Your task to perform on an android device: turn on priority inbox in the gmail app Image 0: 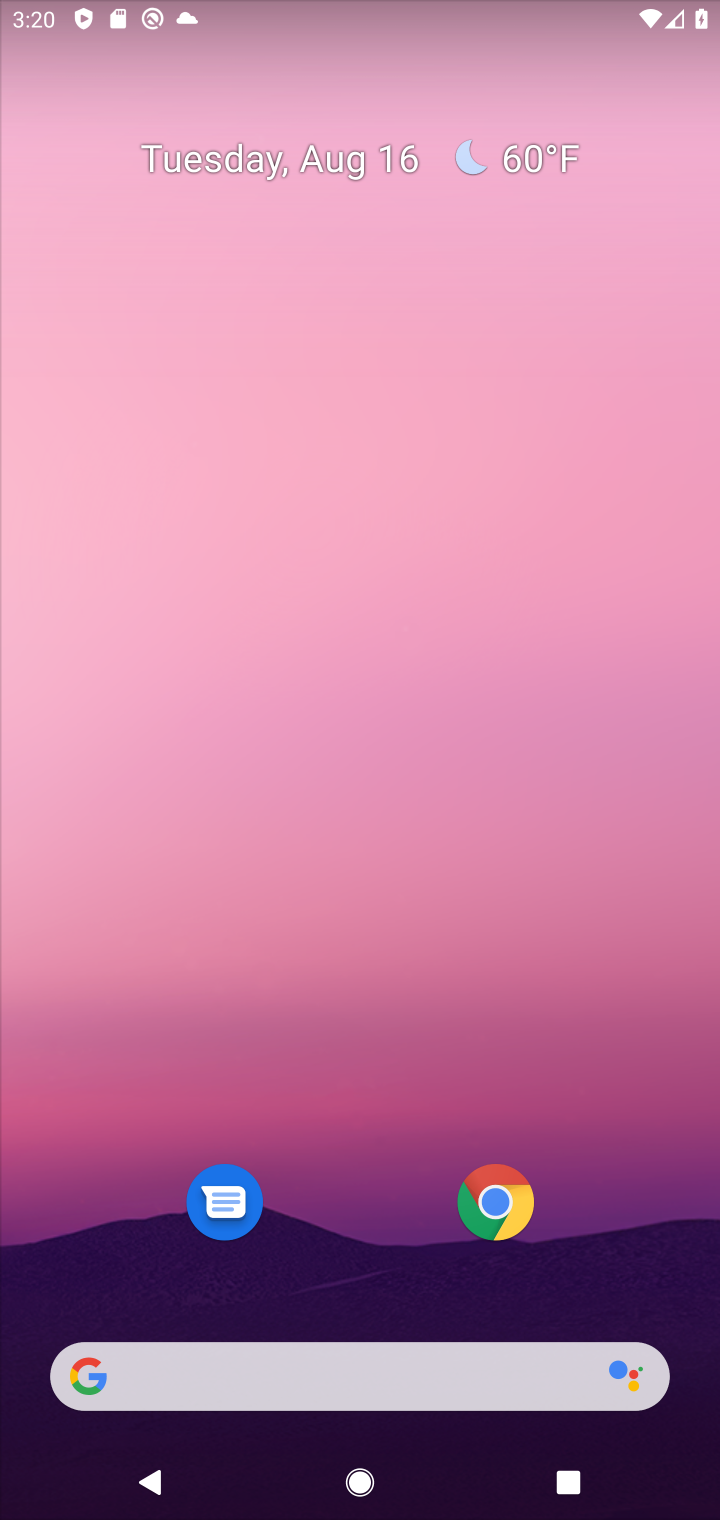
Step 0: drag from (394, 1155) to (431, 365)
Your task to perform on an android device: turn on priority inbox in the gmail app Image 1: 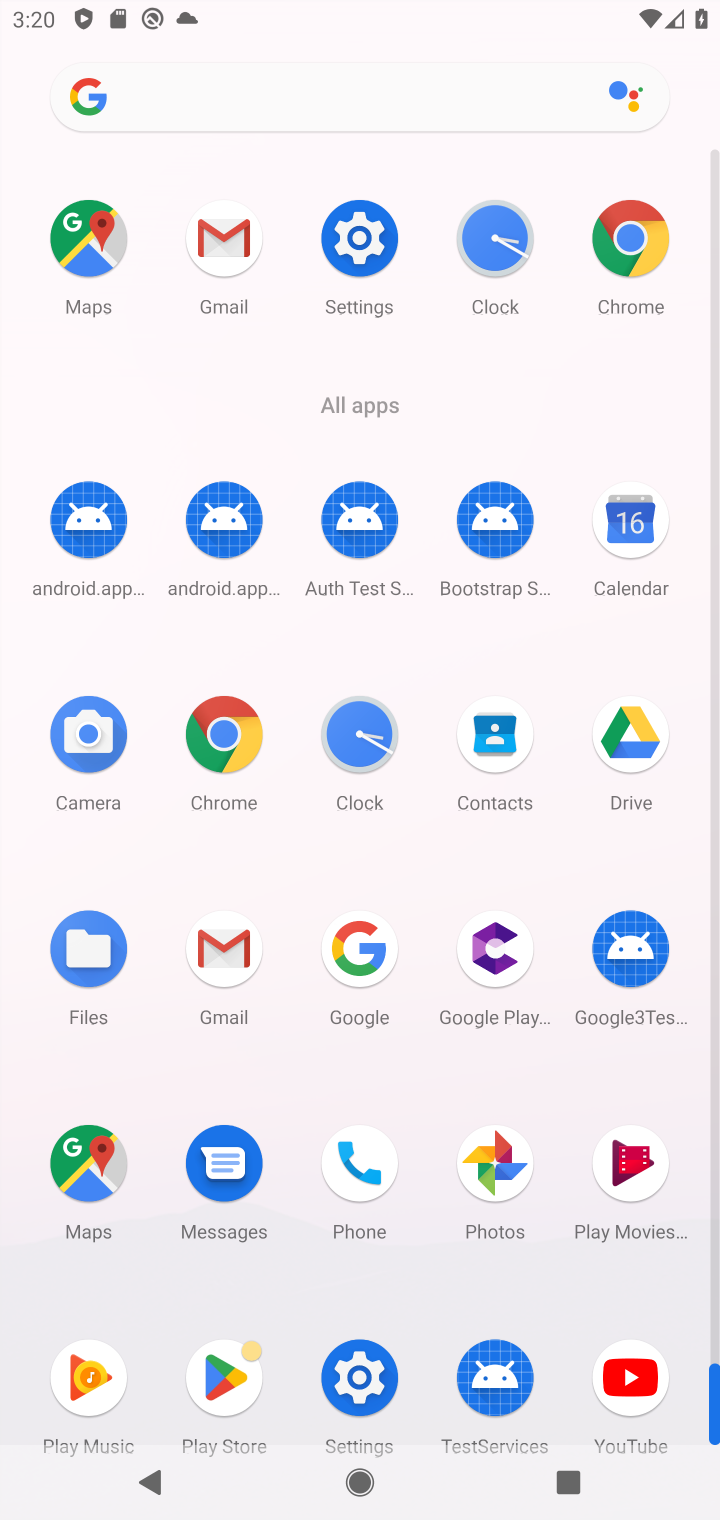
Step 1: click (235, 955)
Your task to perform on an android device: turn on priority inbox in the gmail app Image 2: 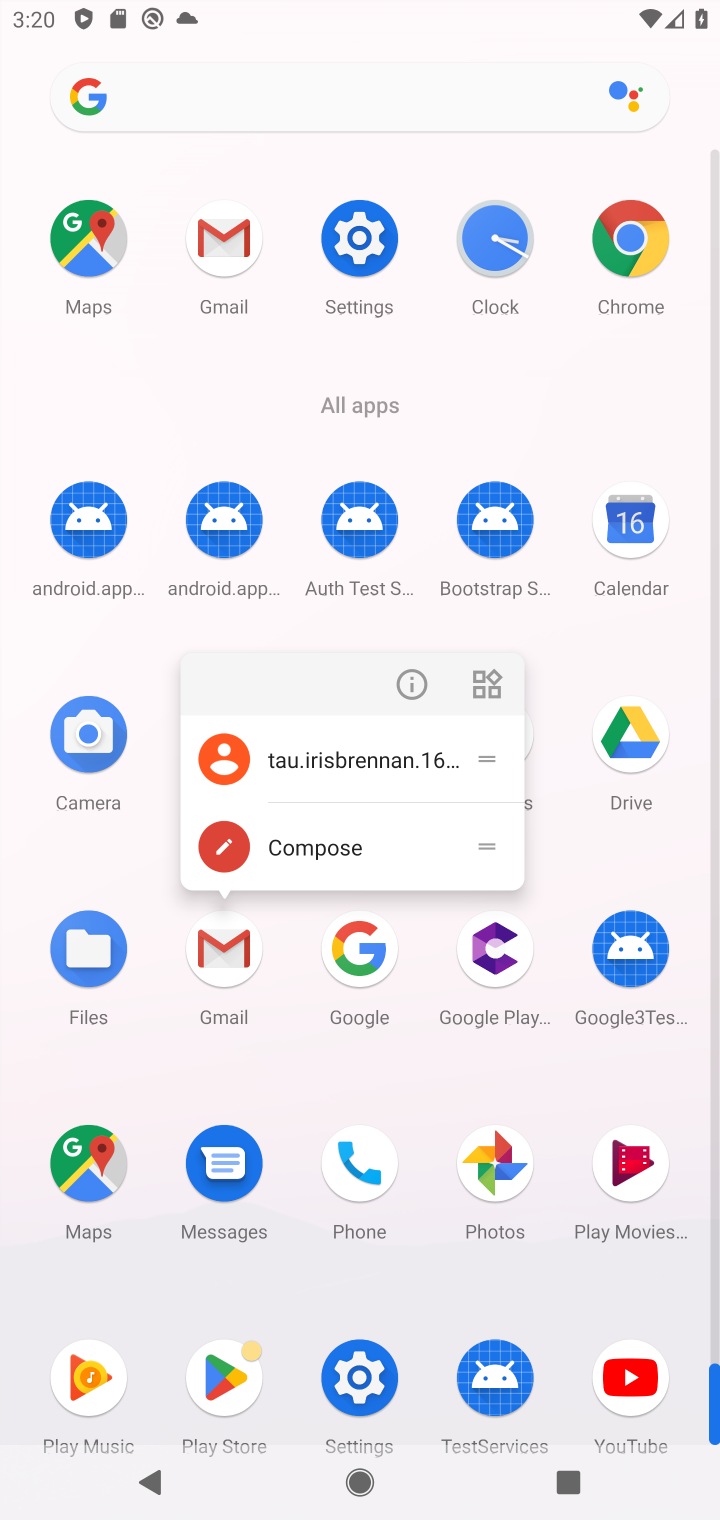
Step 2: click (216, 963)
Your task to perform on an android device: turn on priority inbox in the gmail app Image 3: 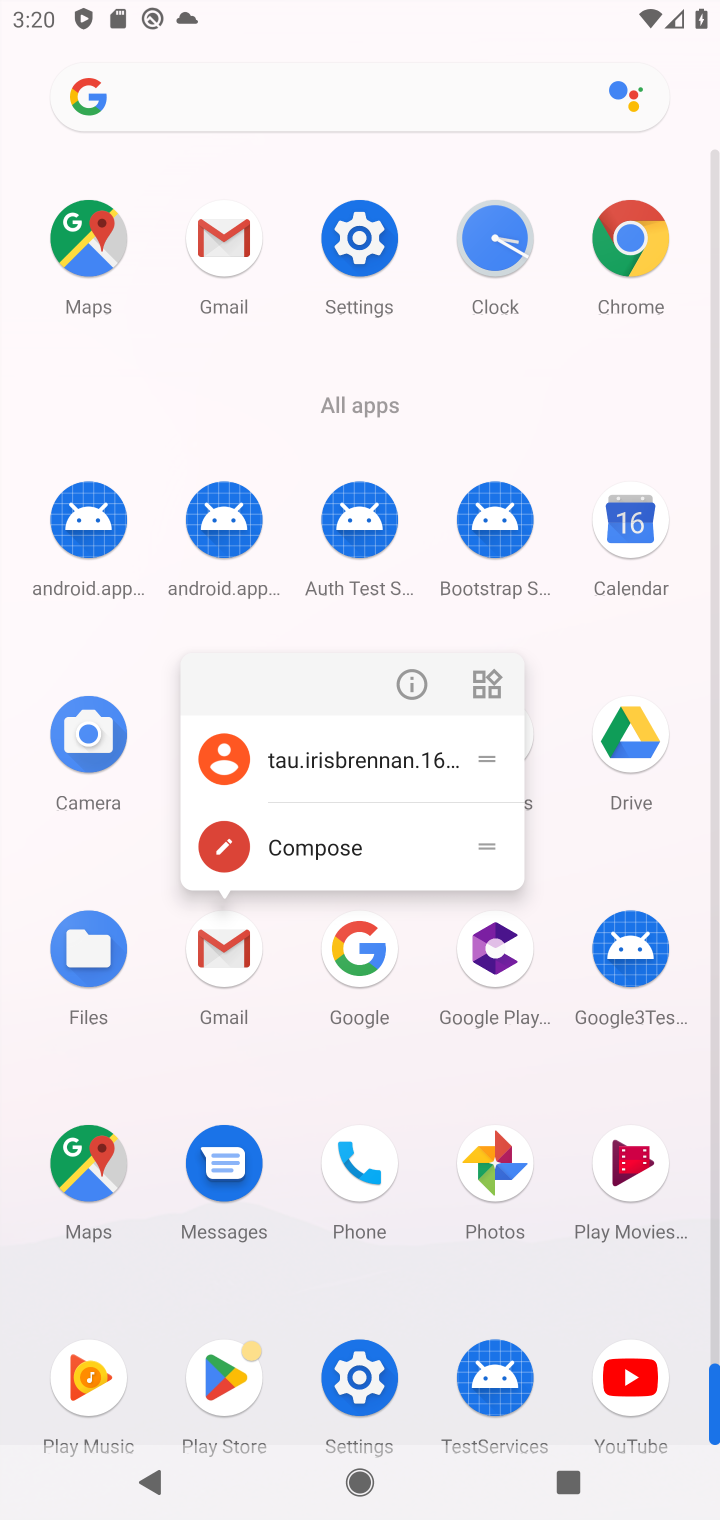
Step 3: click (228, 953)
Your task to perform on an android device: turn on priority inbox in the gmail app Image 4: 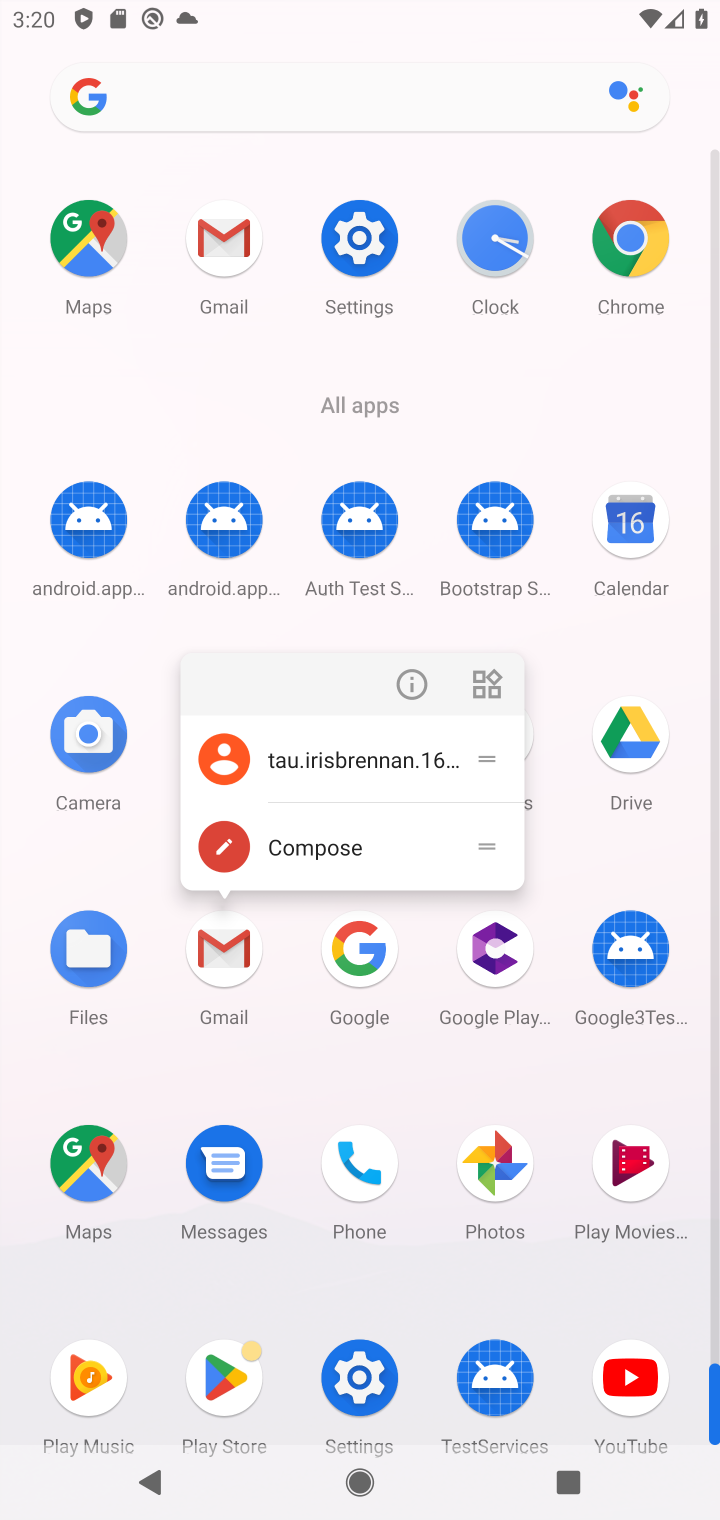
Step 4: click (228, 953)
Your task to perform on an android device: turn on priority inbox in the gmail app Image 5: 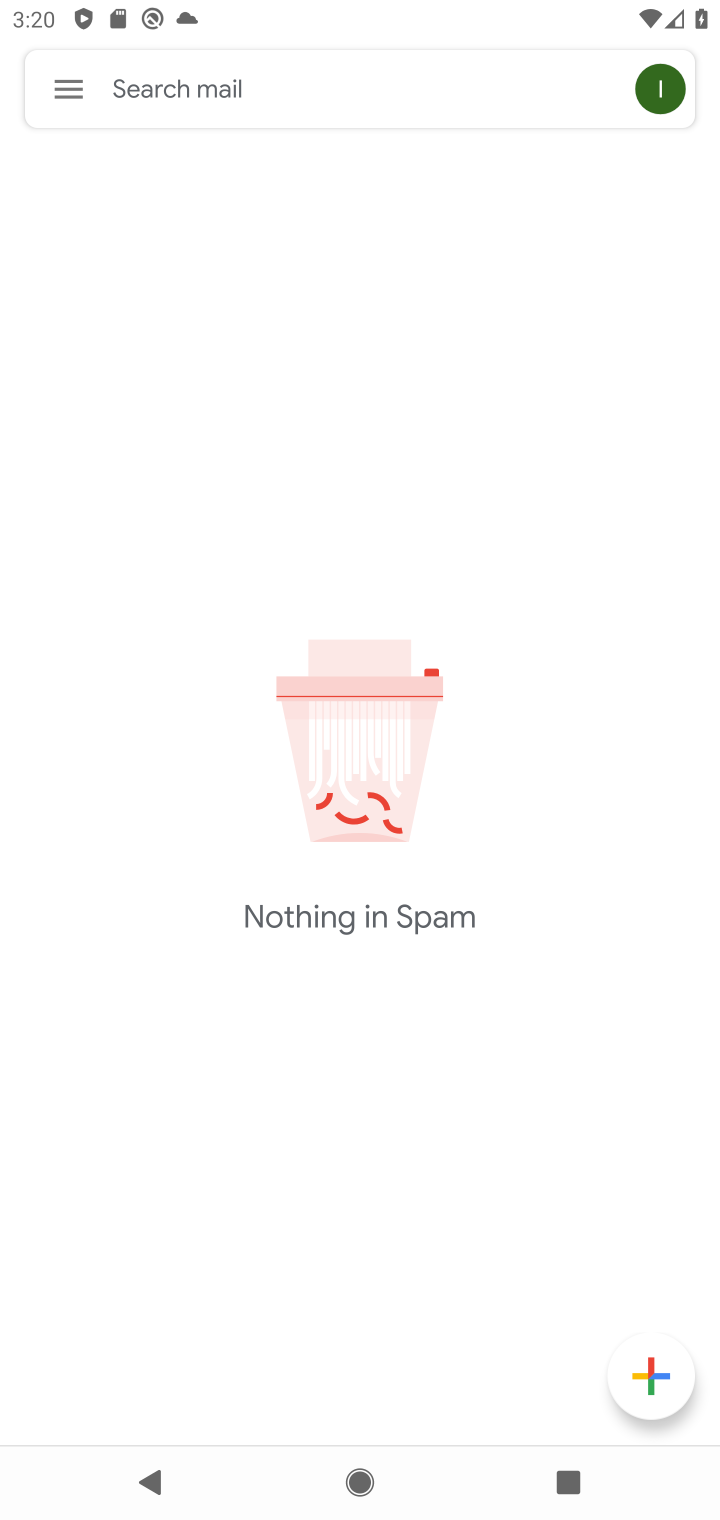
Step 5: click (61, 100)
Your task to perform on an android device: turn on priority inbox in the gmail app Image 6: 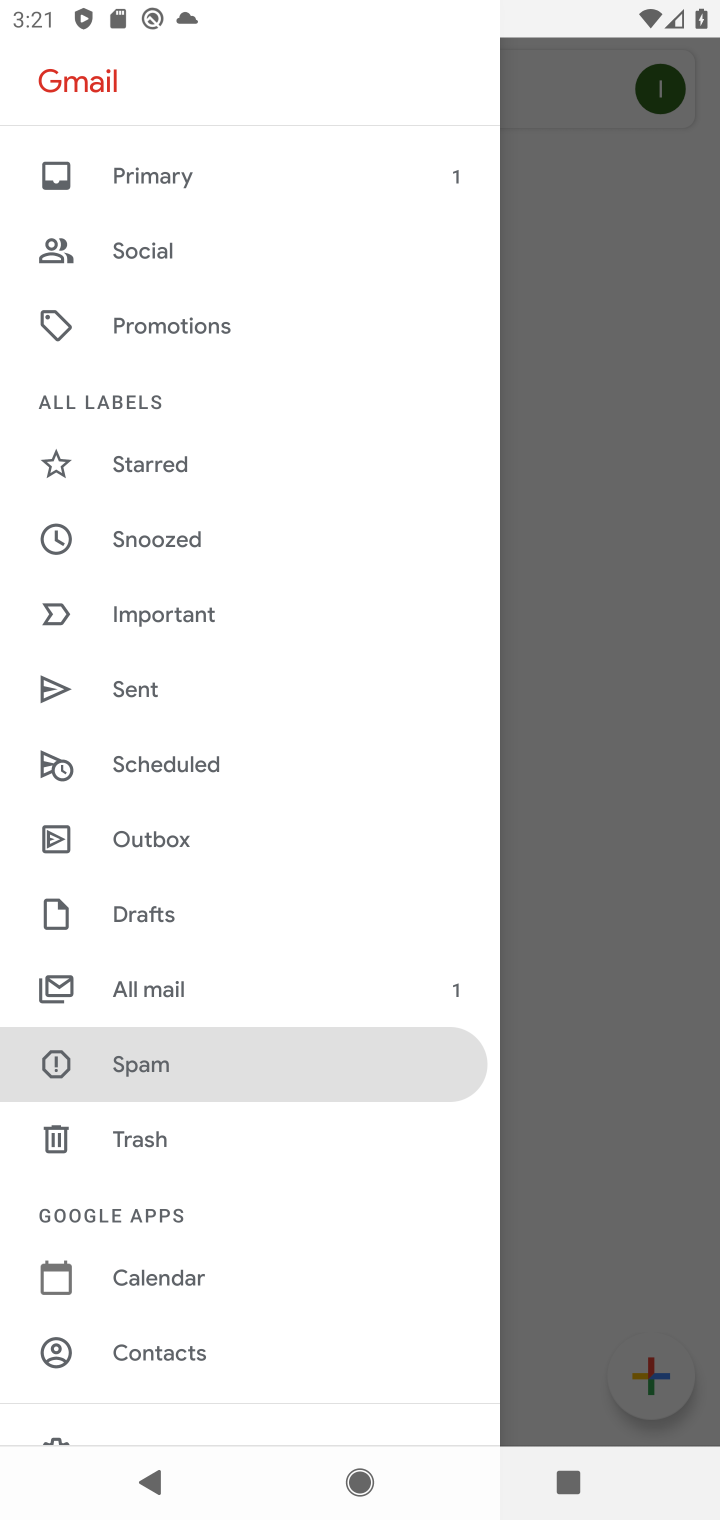
Step 6: drag from (166, 1339) to (246, 792)
Your task to perform on an android device: turn on priority inbox in the gmail app Image 7: 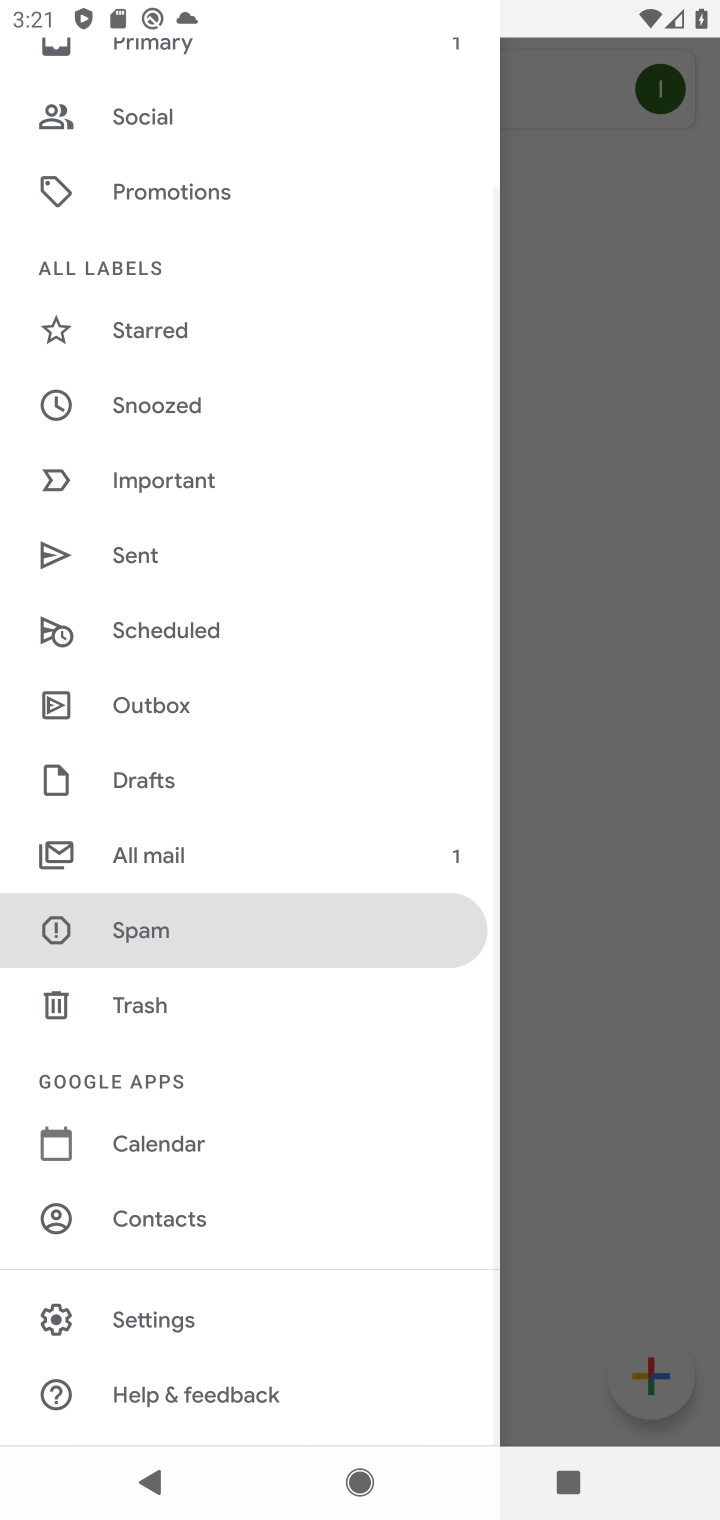
Step 7: click (195, 1326)
Your task to perform on an android device: turn on priority inbox in the gmail app Image 8: 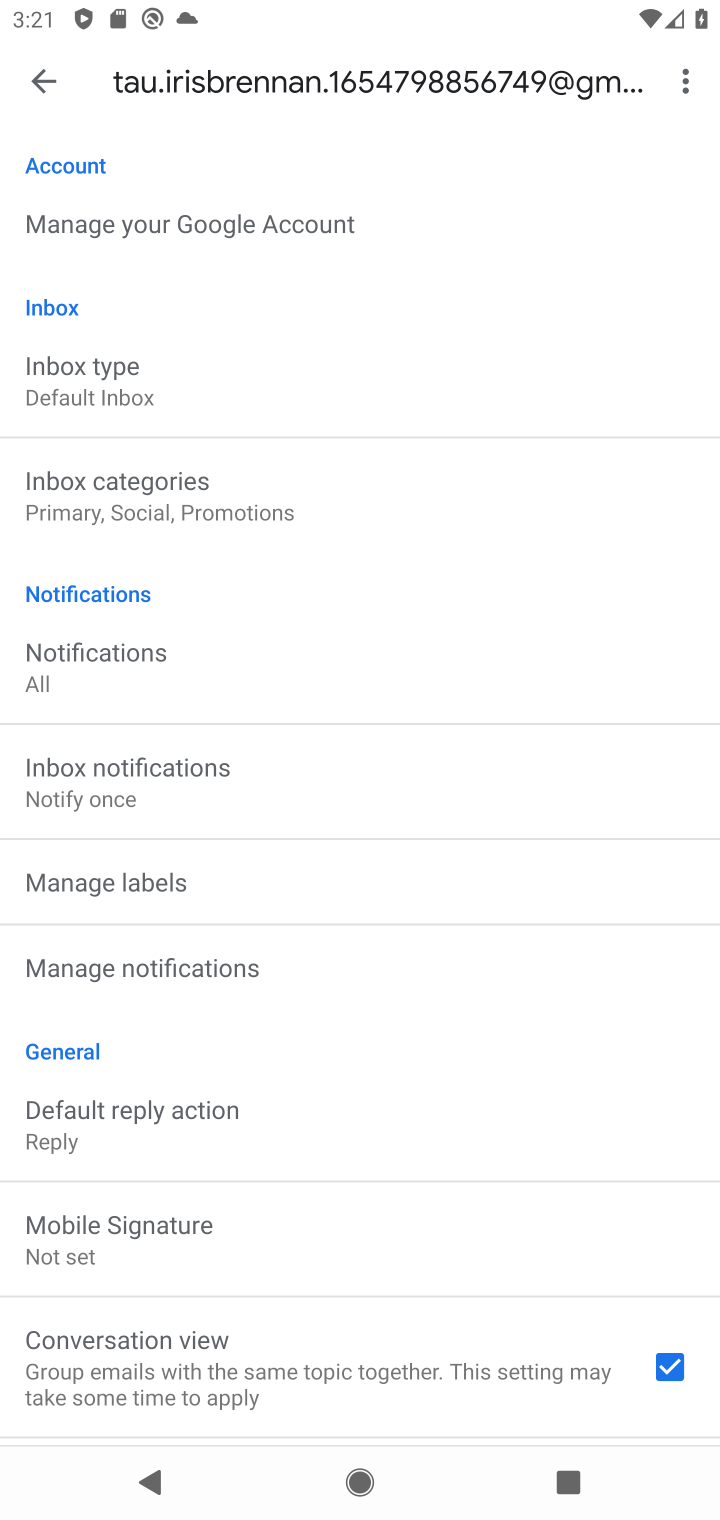
Step 8: click (170, 400)
Your task to perform on an android device: turn on priority inbox in the gmail app Image 9: 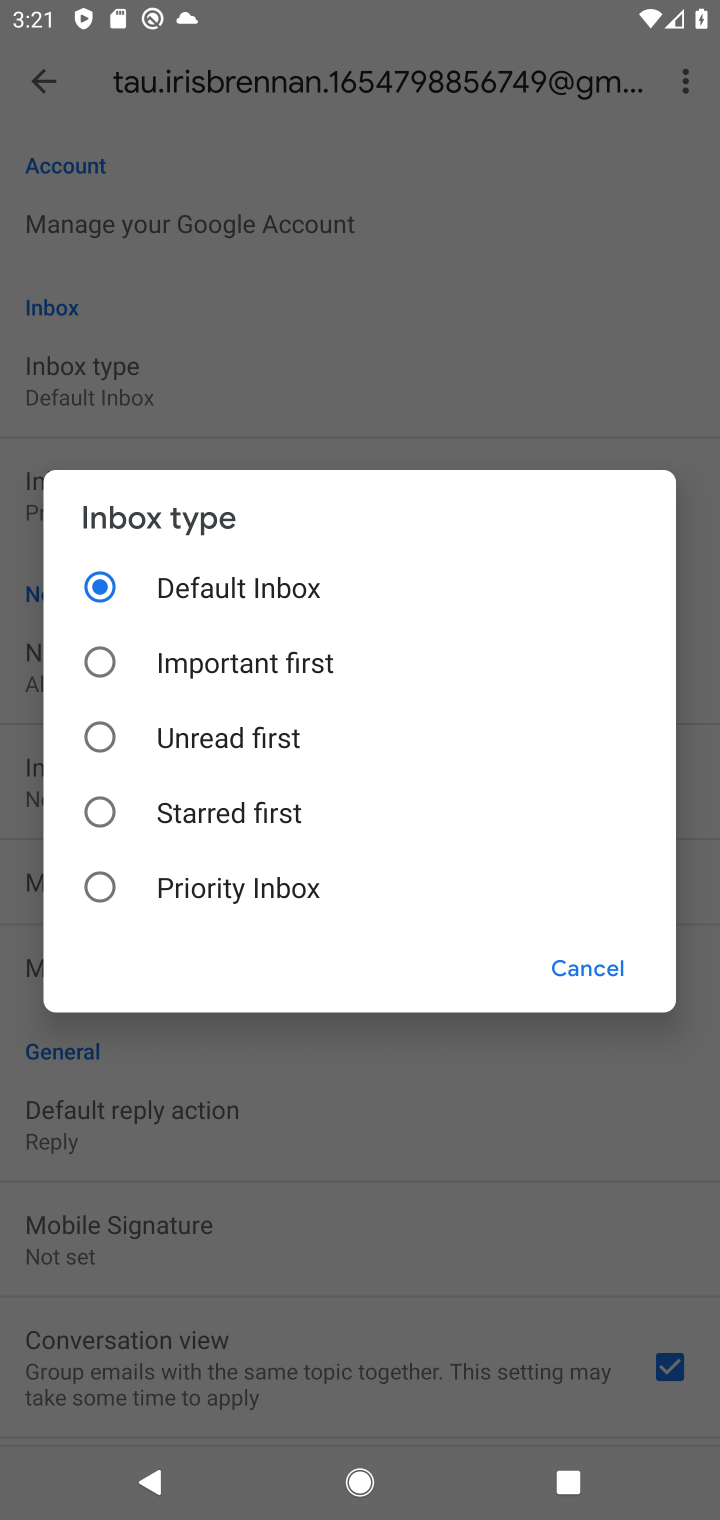
Step 9: click (272, 889)
Your task to perform on an android device: turn on priority inbox in the gmail app Image 10: 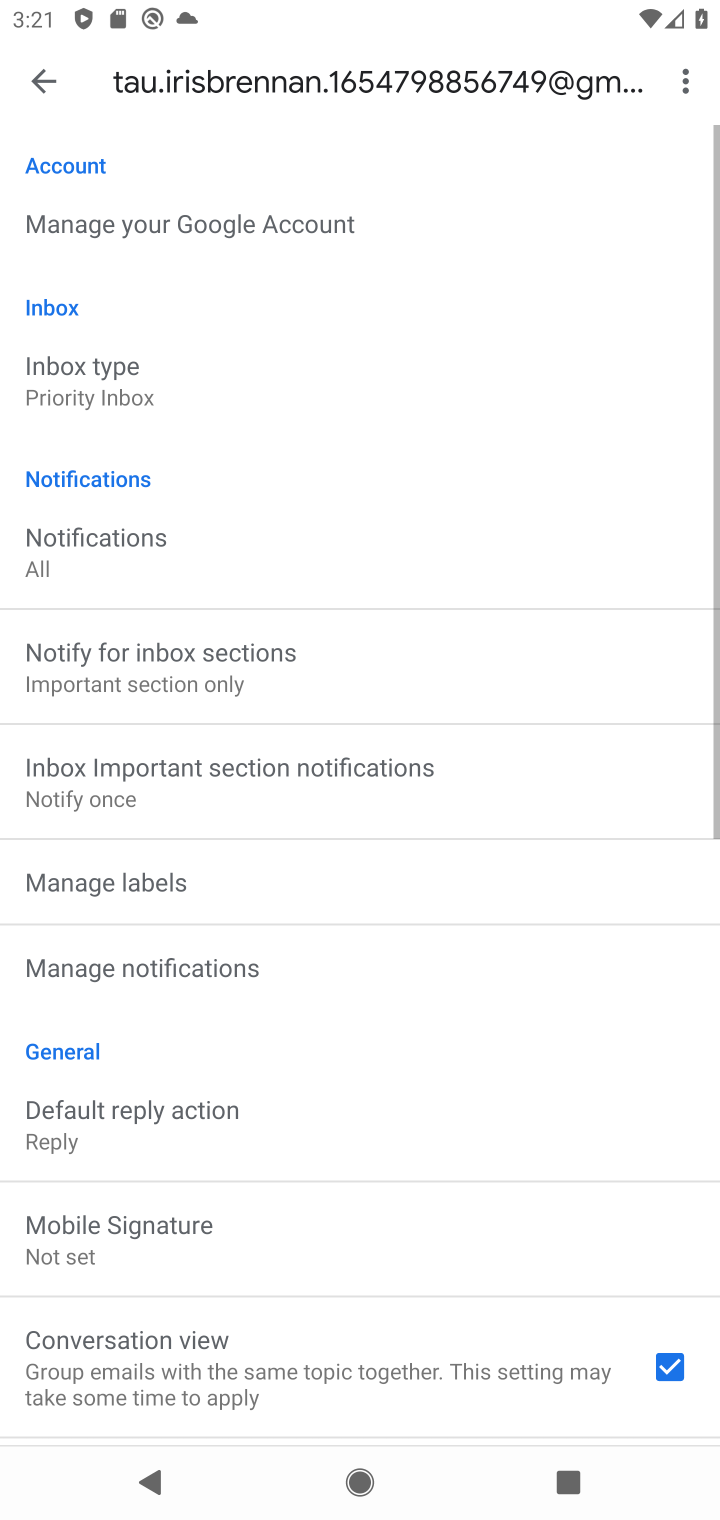
Step 10: task complete